Your task to perform on an android device: open app "Venmo" (install if not already installed), go to login, and select forgot password Image 0: 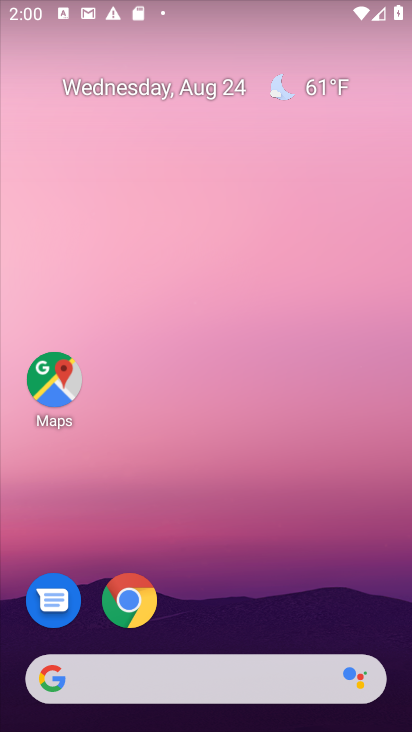
Step 0: press home button
Your task to perform on an android device: open app "Venmo" (install if not already installed), go to login, and select forgot password Image 1: 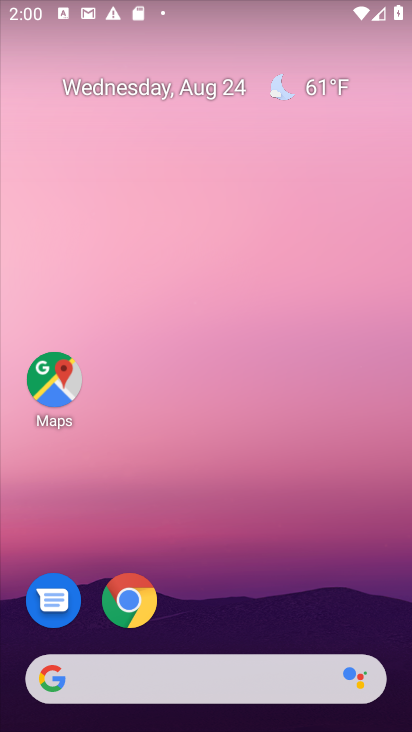
Step 1: drag from (262, 395) to (294, 178)
Your task to perform on an android device: open app "Venmo" (install if not already installed), go to login, and select forgot password Image 2: 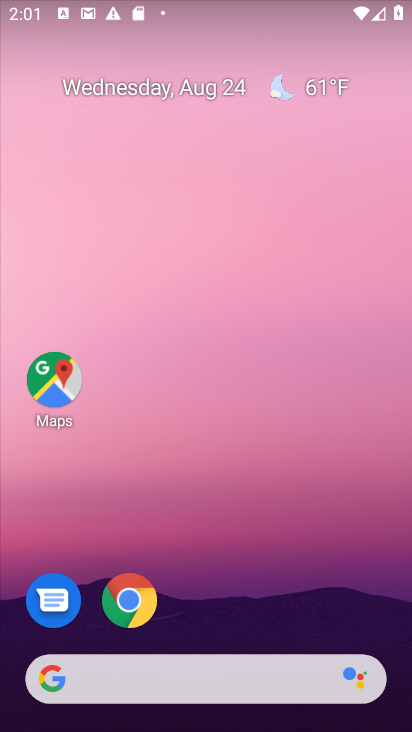
Step 2: drag from (268, 615) to (278, 322)
Your task to perform on an android device: open app "Venmo" (install if not already installed), go to login, and select forgot password Image 3: 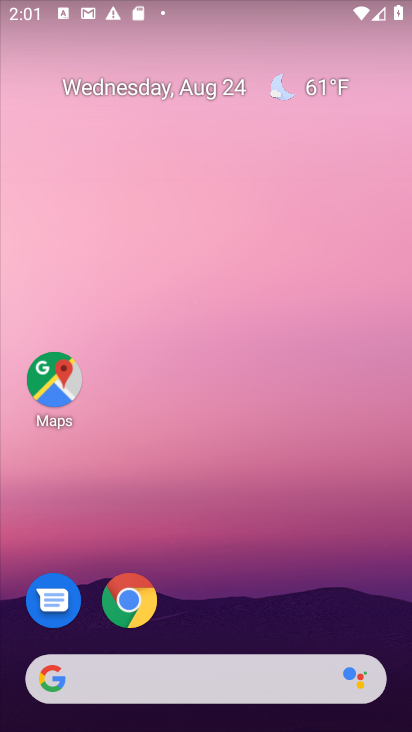
Step 3: drag from (286, 622) to (274, 13)
Your task to perform on an android device: open app "Venmo" (install if not already installed), go to login, and select forgot password Image 4: 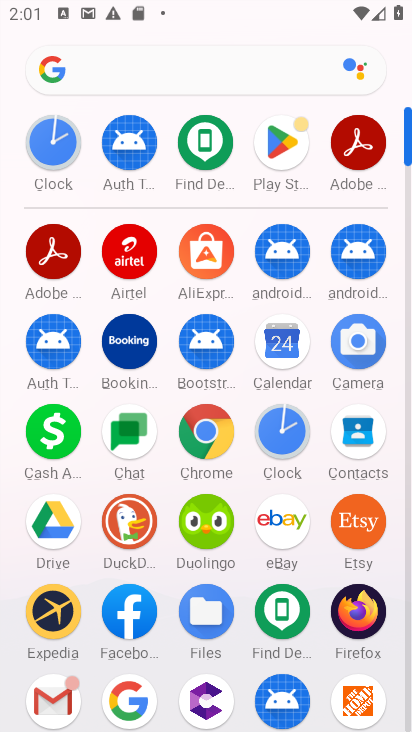
Step 4: click (271, 166)
Your task to perform on an android device: open app "Venmo" (install if not already installed), go to login, and select forgot password Image 5: 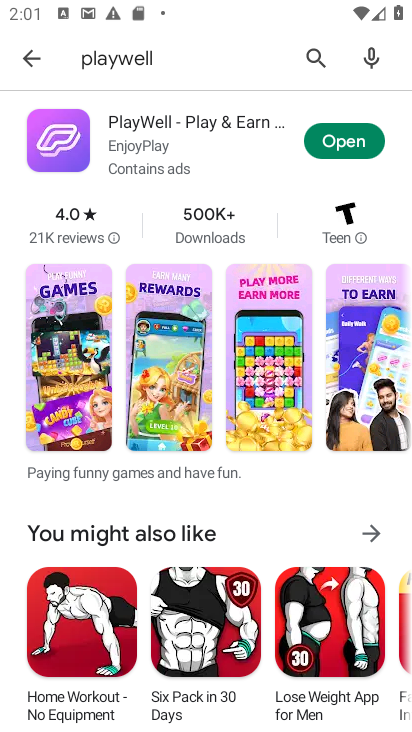
Step 5: click (311, 62)
Your task to perform on an android device: open app "Venmo" (install if not already installed), go to login, and select forgot password Image 6: 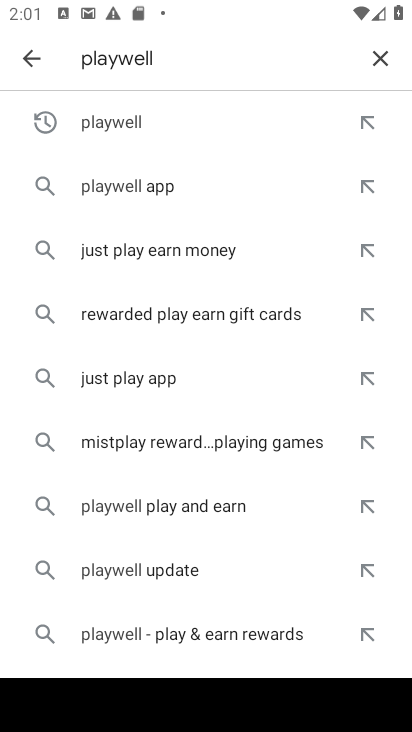
Step 6: click (369, 59)
Your task to perform on an android device: open app "Venmo" (install if not already installed), go to login, and select forgot password Image 7: 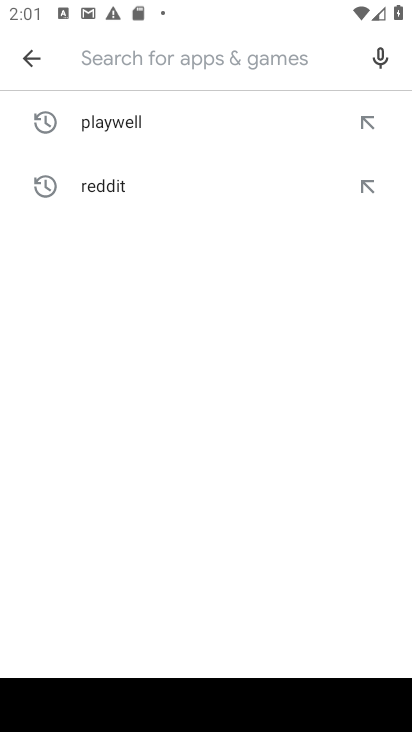
Step 7: type "venmo"
Your task to perform on an android device: open app "Venmo" (install if not already installed), go to login, and select forgot password Image 8: 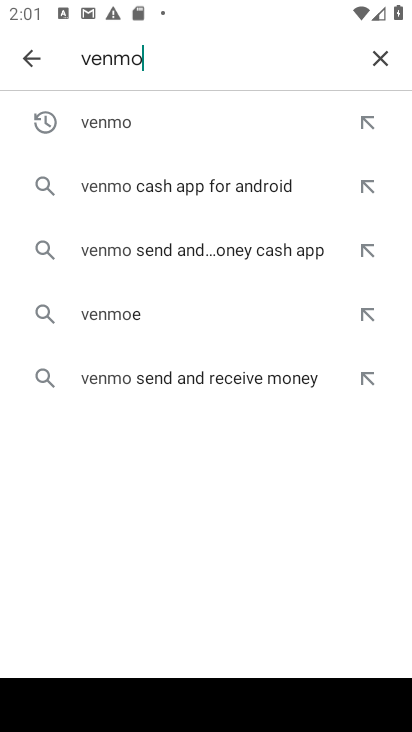
Step 8: click (179, 137)
Your task to perform on an android device: open app "Venmo" (install if not already installed), go to login, and select forgot password Image 9: 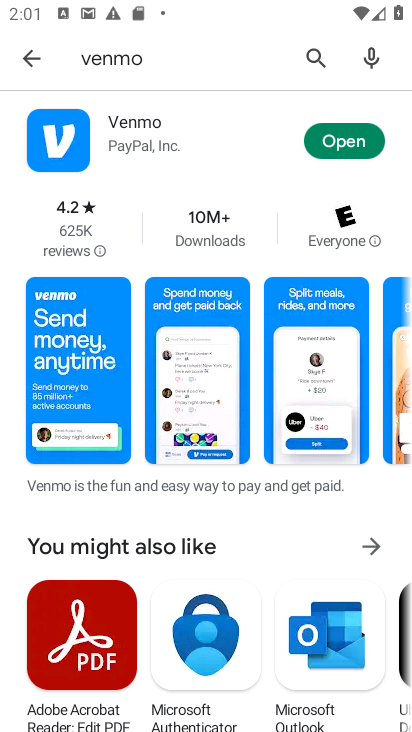
Step 9: click (347, 133)
Your task to perform on an android device: open app "Venmo" (install if not already installed), go to login, and select forgot password Image 10: 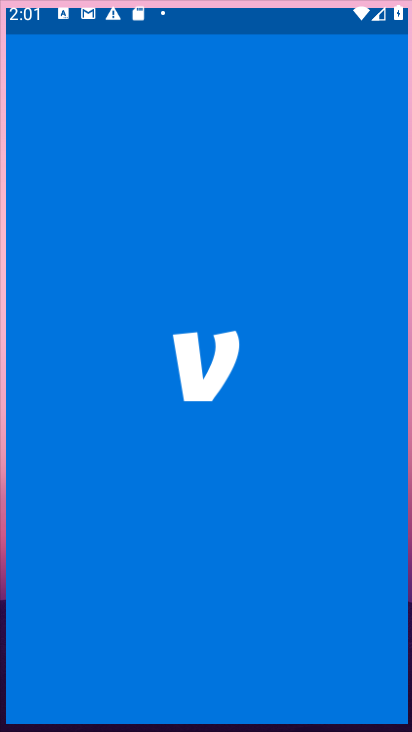
Step 10: task complete